Your task to perform on an android device: install app "Move to iOS" Image 0: 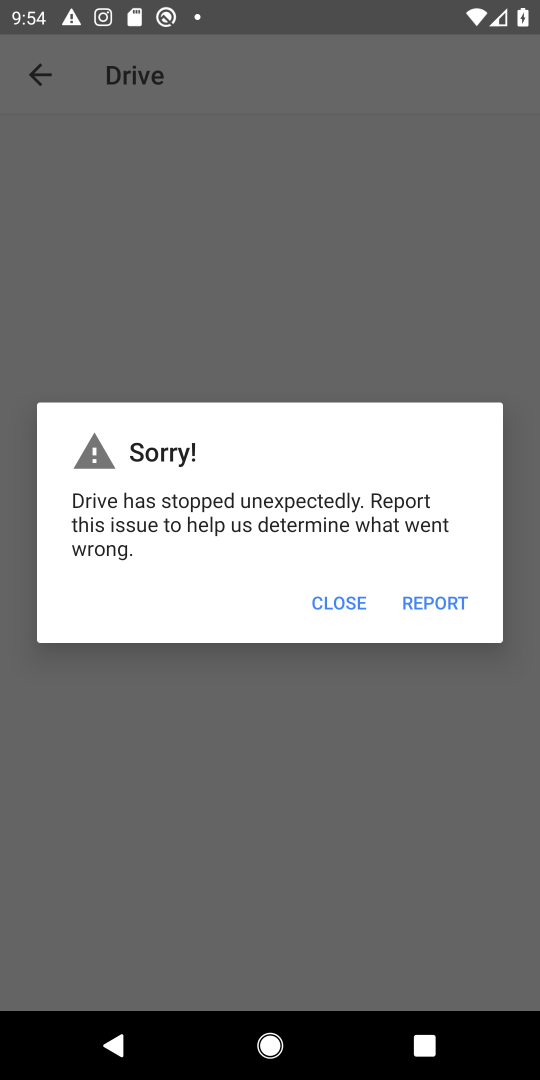
Step 0: press home button
Your task to perform on an android device: install app "Move to iOS" Image 1: 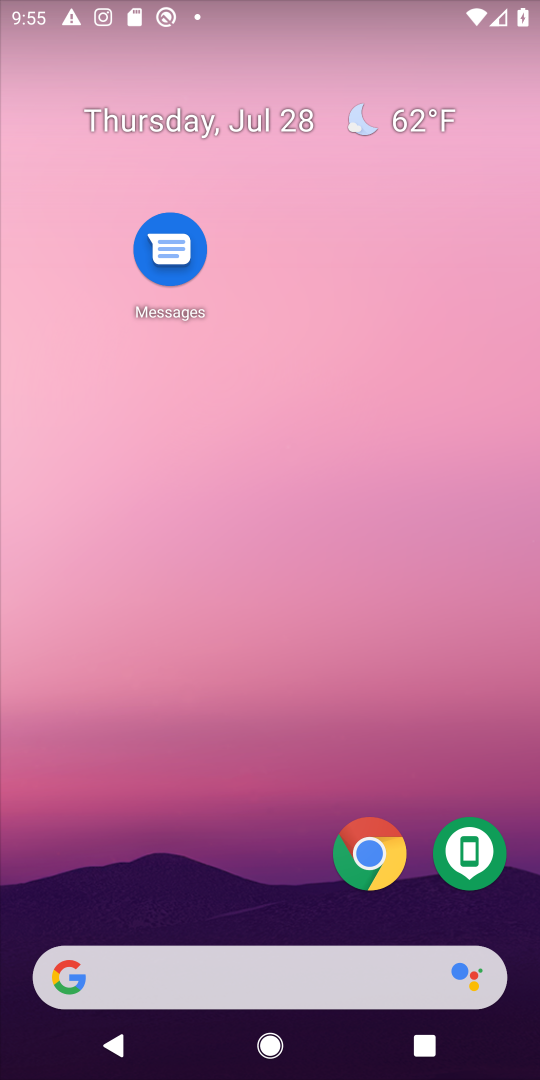
Step 1: drag from (234, 501) to (234, 115)
Your task to perform on an android device: install app "Move to iOS" Image 2: 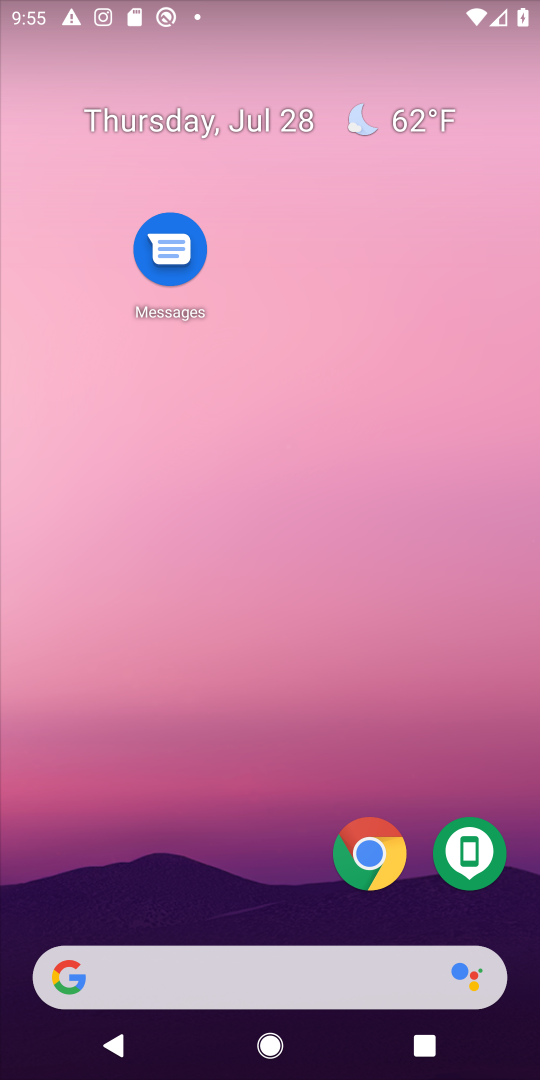
Step 2: drag from (242, 880) to (244, 134)
Your task to perform on an android device: install app "Move to iOS" Image 3: 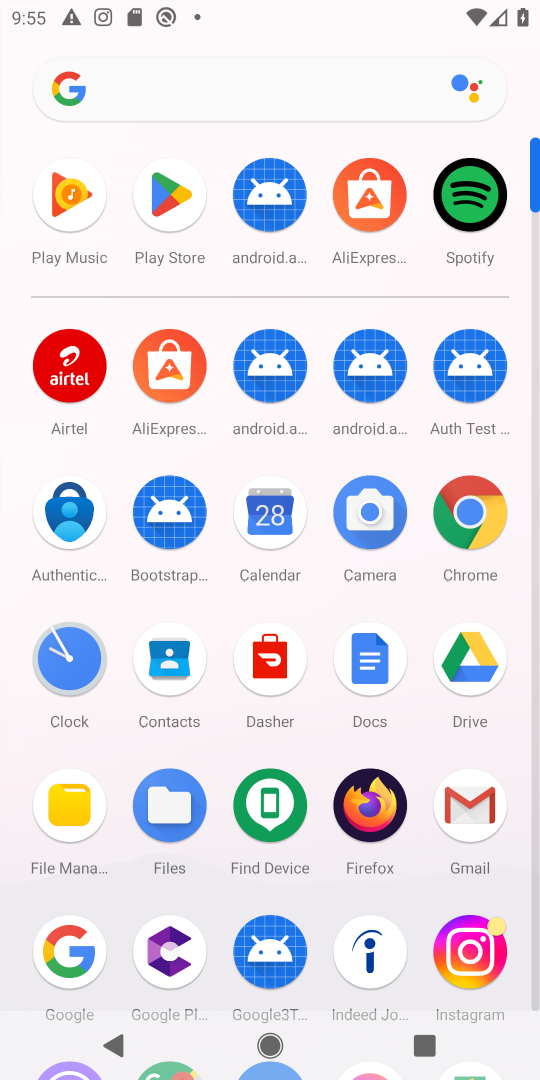
Step 3: click (176, 201)
Your task to perform on an android device: install app "Move to iOS" Image 4: 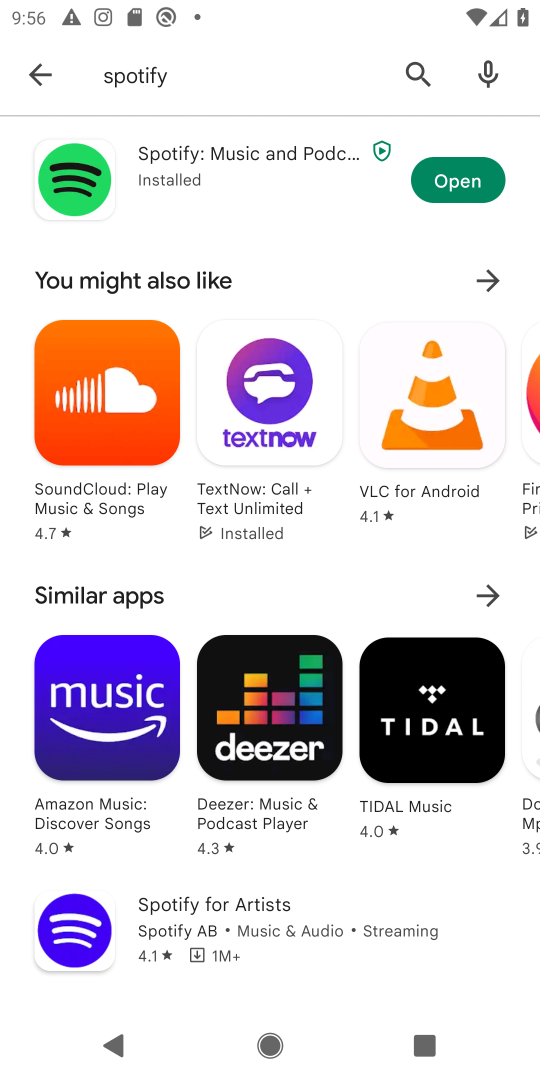
Step 4: click (34, 77)
Your task to perform on an android device: install app "Move to iOS" Image 5: 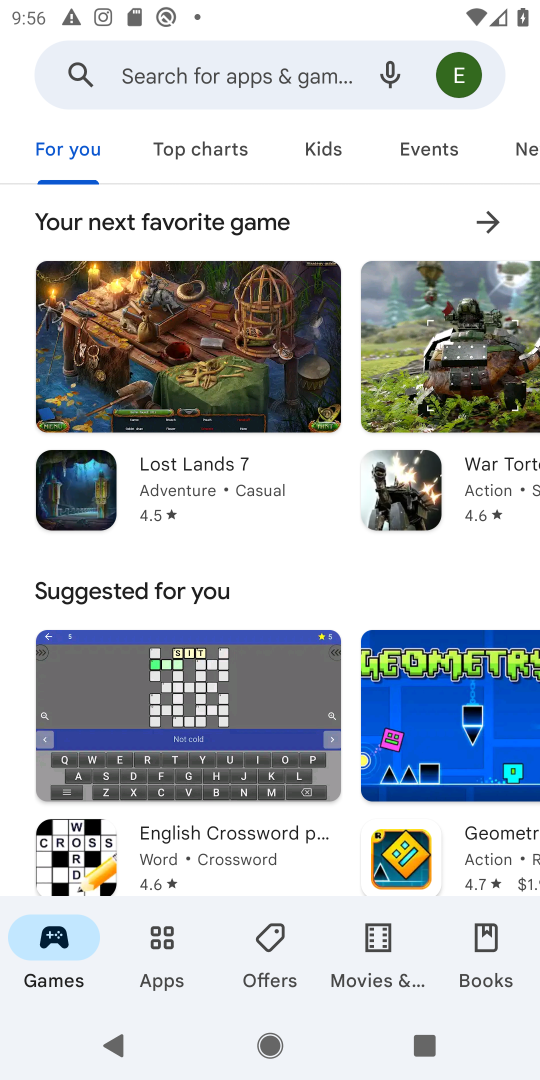
Step 5: click (234, 66)
Your task to perform on an android device: install app "Move to iOS" Image 6: 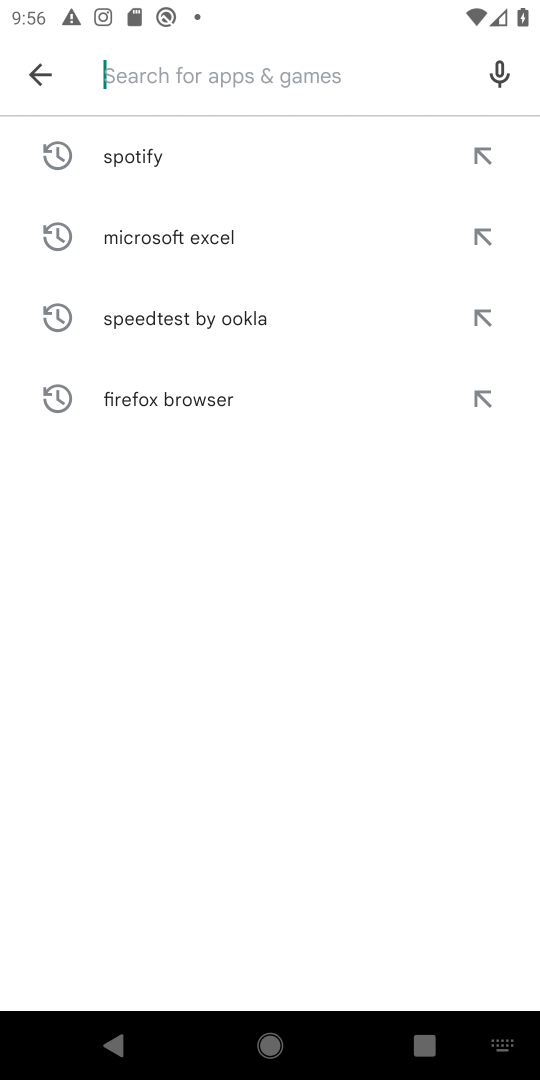
Step 6: type "Move to iOS"
Your task to perform on an android device: install app "Move to iOS" Image 7: 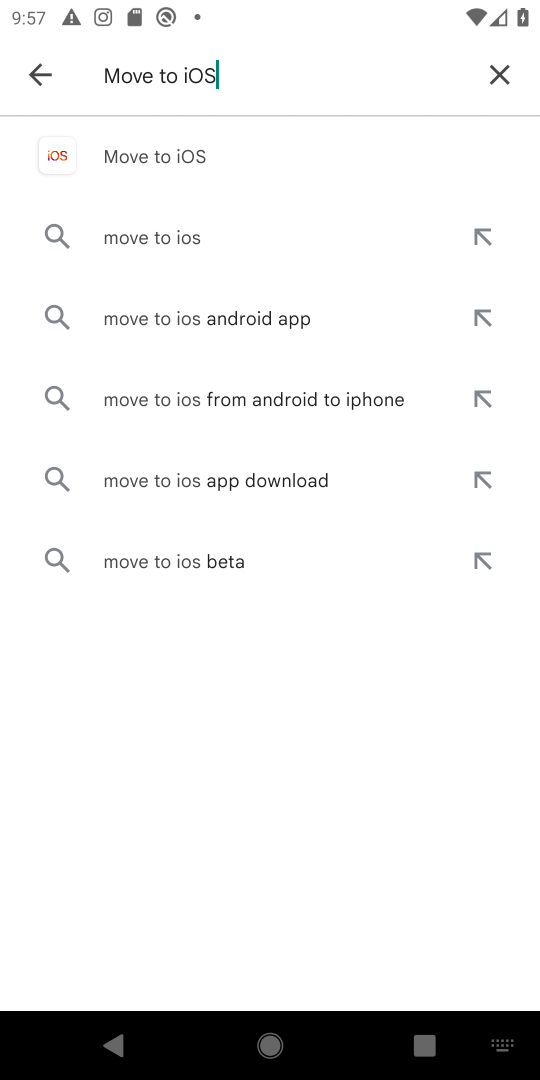
Step 7: click (175, 170)
Your task to perform on an android device: install app "Move to iOS" Image 8: 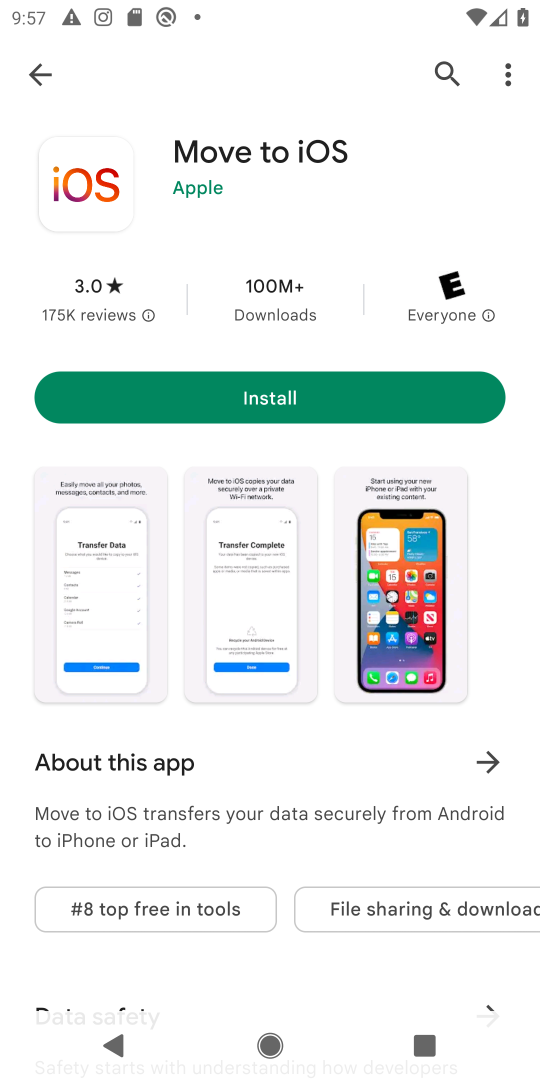
Step 8: click (228, 387)
Your task to perform on an android device: install app "Move to iOS" Image 9: 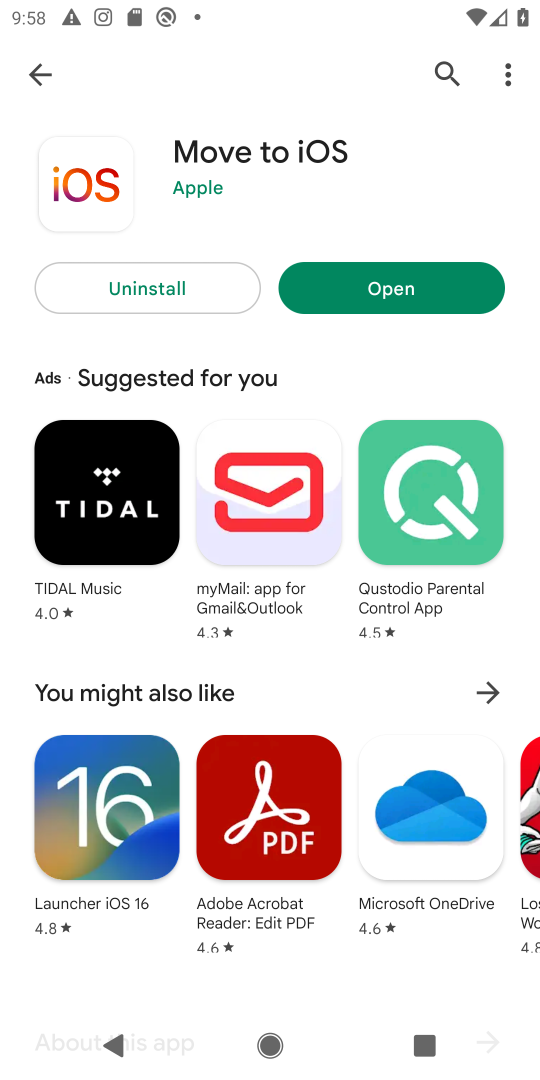
Step 9: task complete